Your task to perform on an android device: check google app version Image 0: 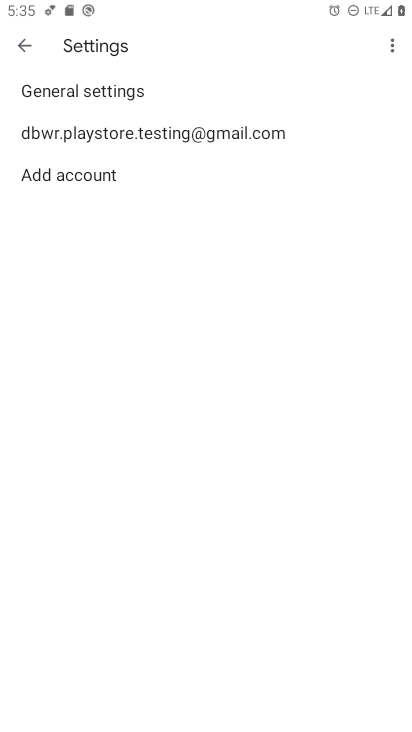
Step 0: press home button
Your task to perform on an android device: check google app version Image 1: 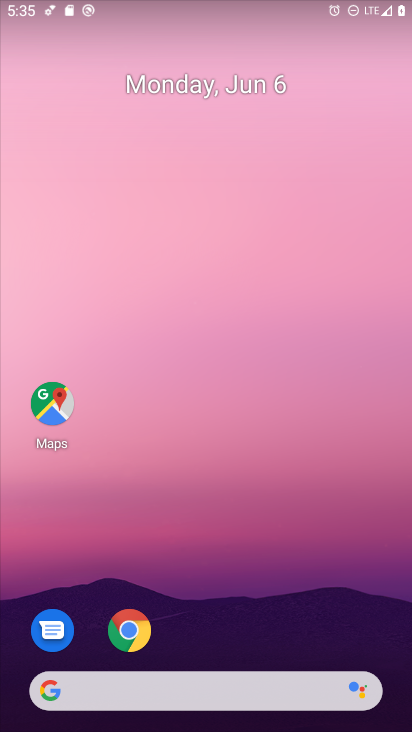
Step 1: drag from (315, 589) to (226, 10)
Your task to perform on an android device: check google app version Image 2: 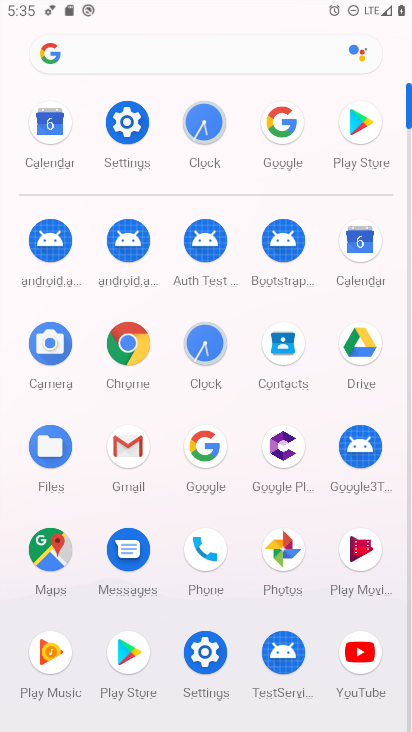
Step 2: click (211, 447)
Your task to perform on an android device: check google app version Image 3: 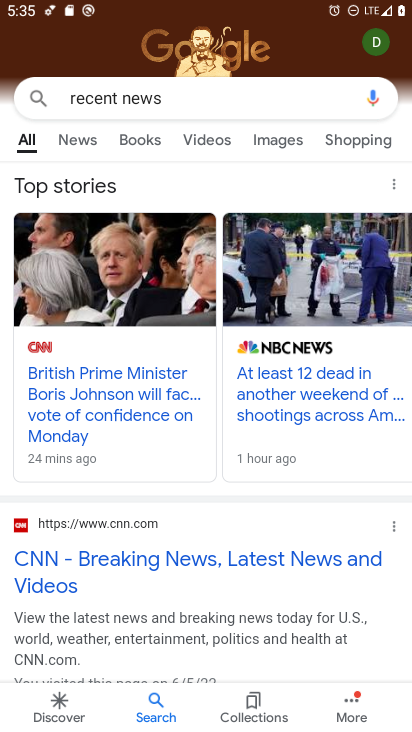
Step 3: click (355, 707)
Your task to perform on an android device: check google app version Image 4: 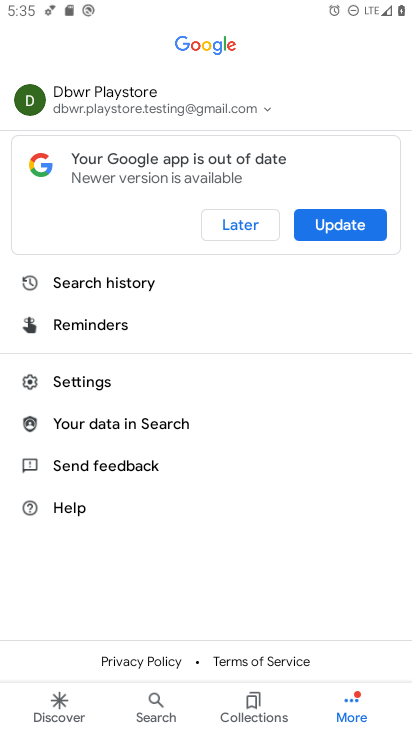
Step 4: click (122, 375)
Your task to perform on an android device: check google app version Image 5: 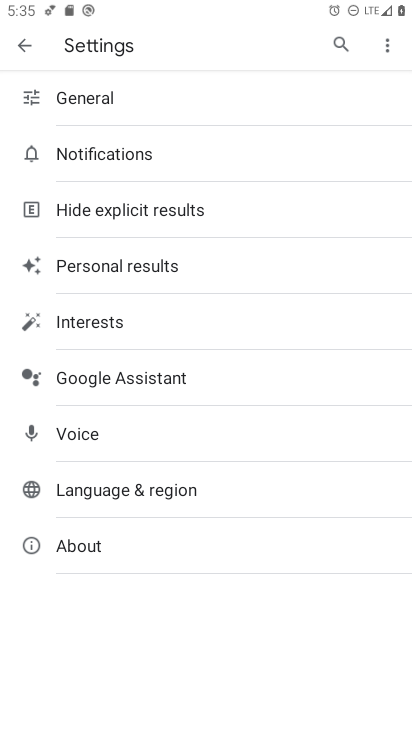
Step 5: click (132, 546)
Your task to perform on an android device: check google app version Image 6: 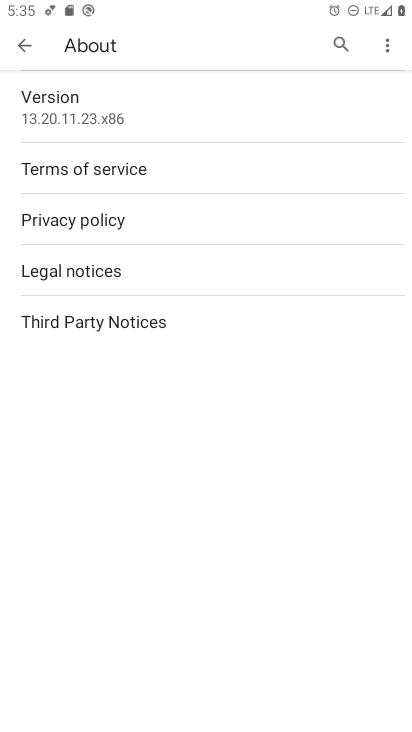
Step 6: click (119, 104)
Your task to perform on an android device: check google app version Image 7: 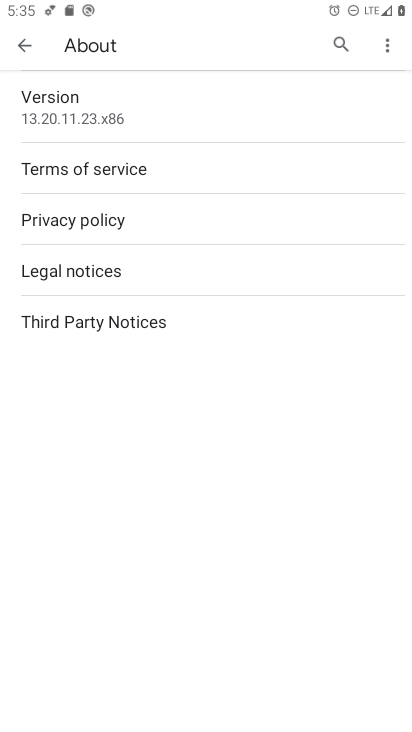
Step 7: task complete